Your task to perform on an android device: Search for razer deathadder on walmart, select the first entry, and add it to the cart. Image 0: 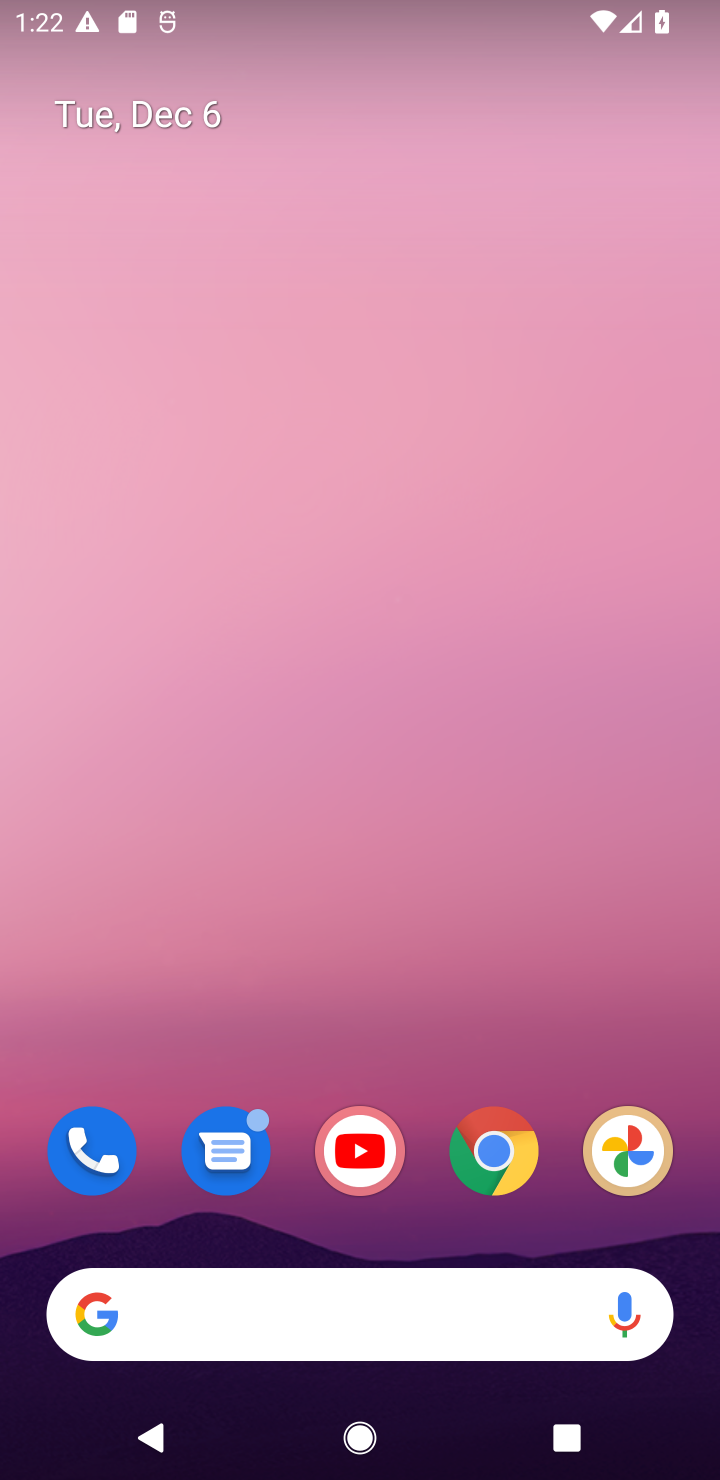
Step 0: click (504, 1154)
Your task to perform on an android device: Search for razer deathadder on walmart, select the first entry, and add it to the cart. Image 1: 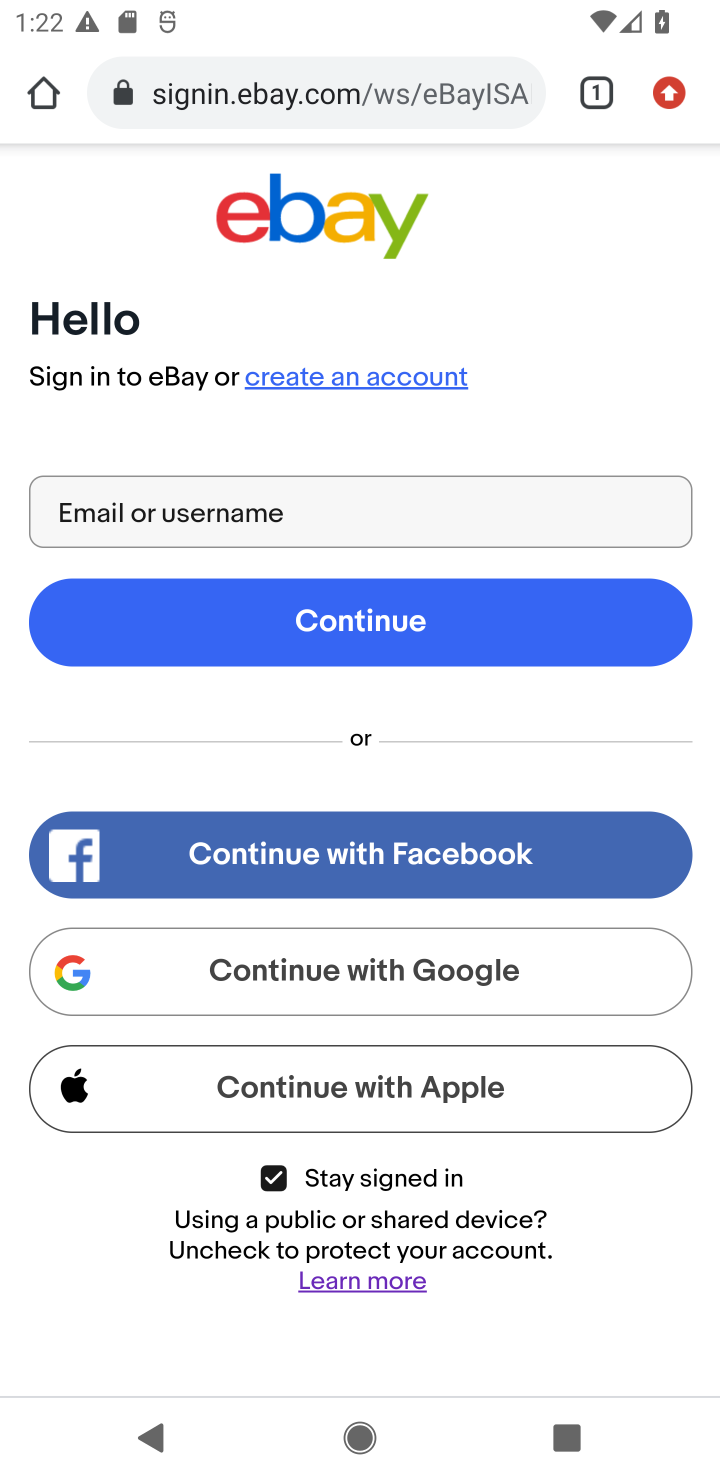
Step 1: click (276, 105)
Your task to perform on an android device: Search for razer deathadder on walmart, select the first entry, and add it to the cart. Image 2: 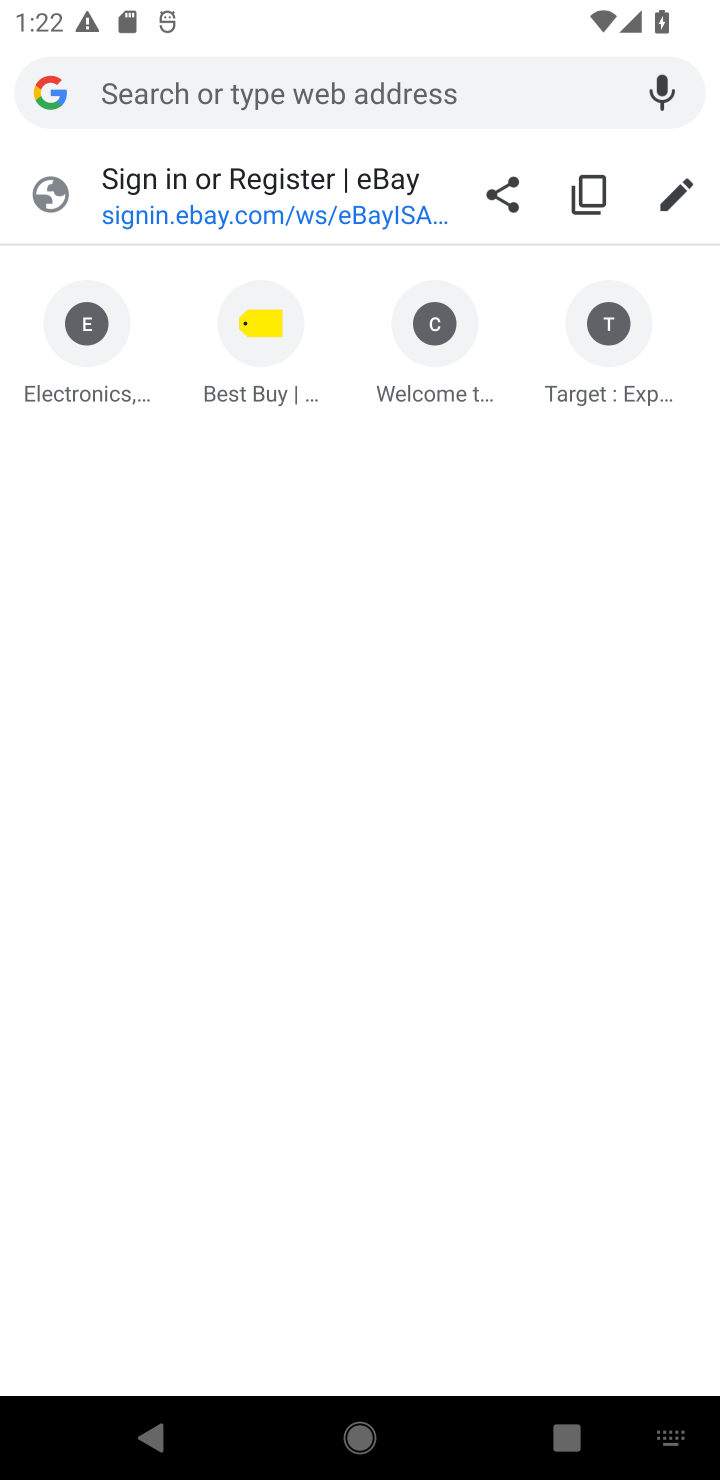
Step 2: type "walmart.com"
Your task to perform on an android device: Search for razer deathadder on walmart, select the first entry, and add it to the cart. Image 3: 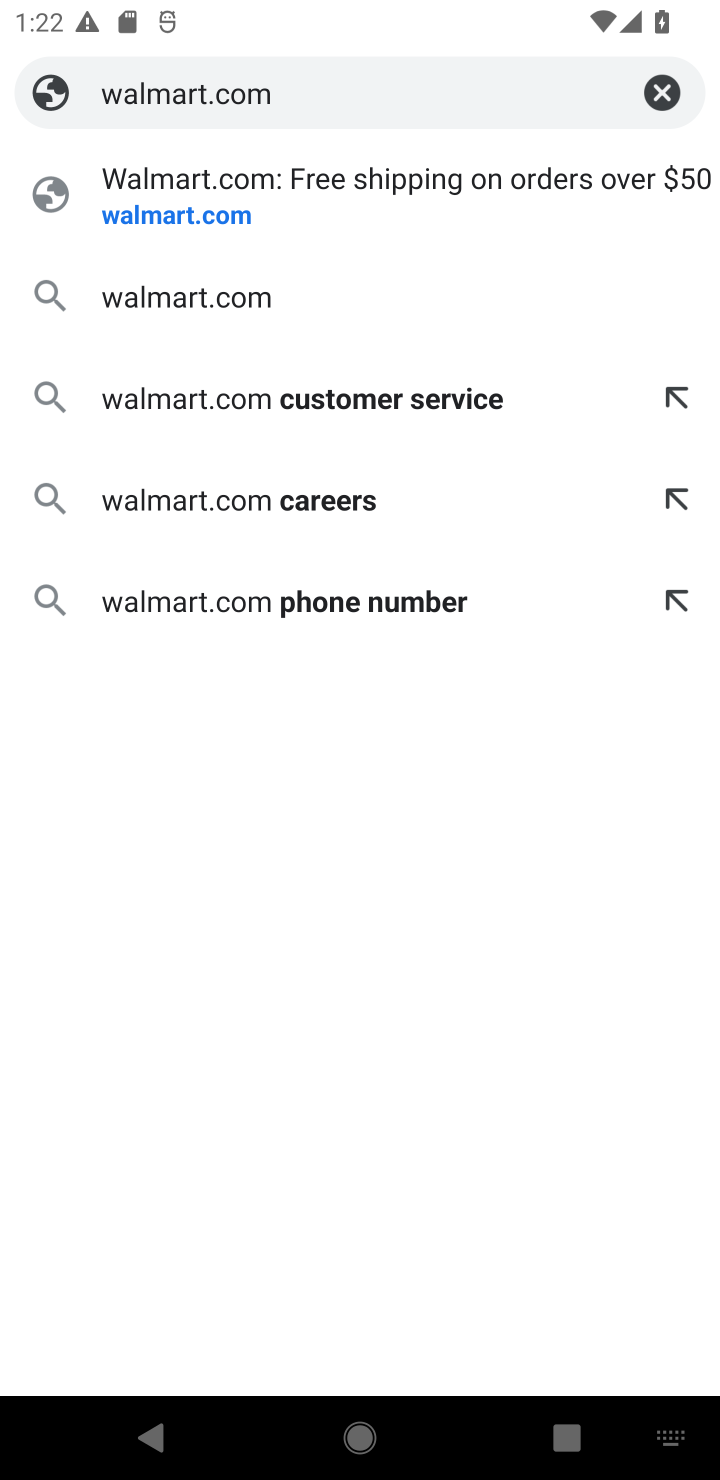
Step 3: click (186, 214)
Your task to perform on an android device: Search for razer deathadder on walmart, select the first entry, and add it to the cart. Image 4: 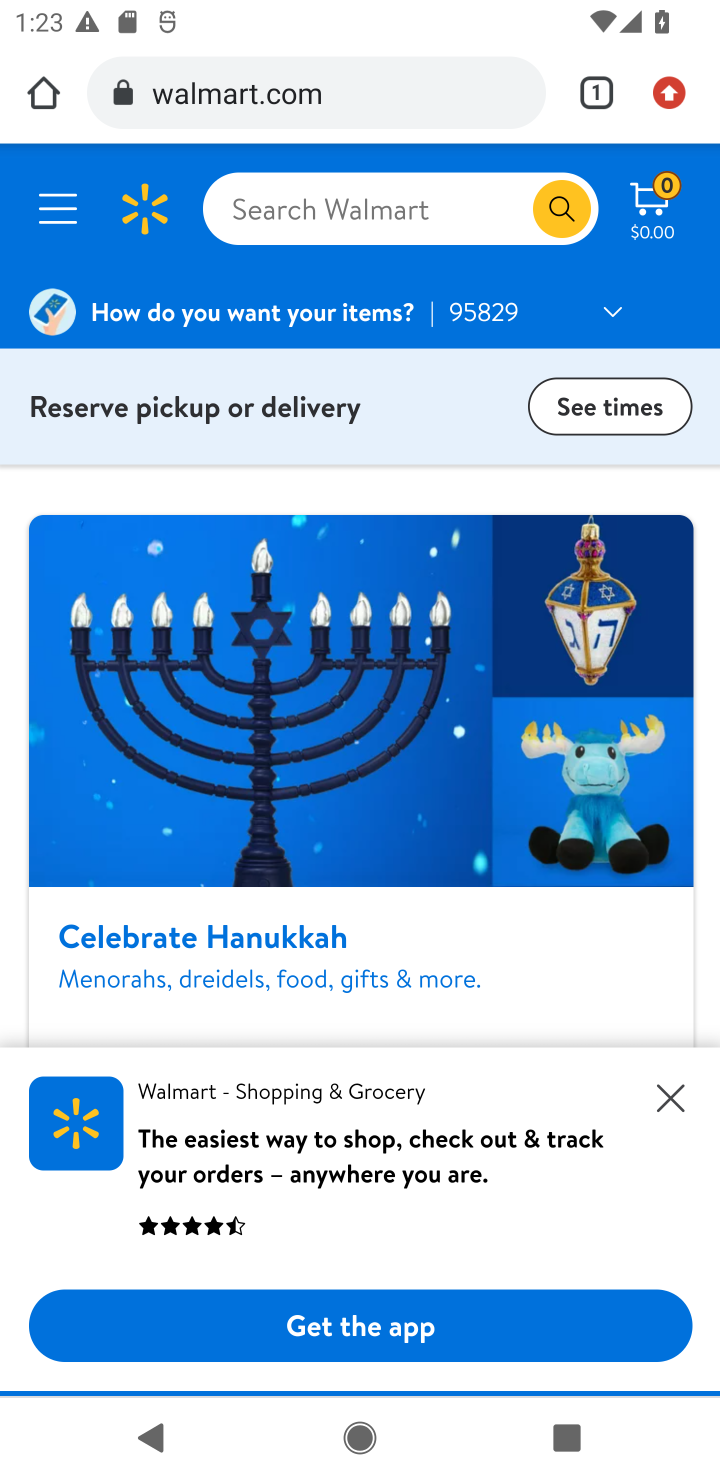
Step 4: click (283, 217)
Your task to perform on an android device: Search for razer deathadder on walmart, select the first entry, and add it to the cart. Image 5: 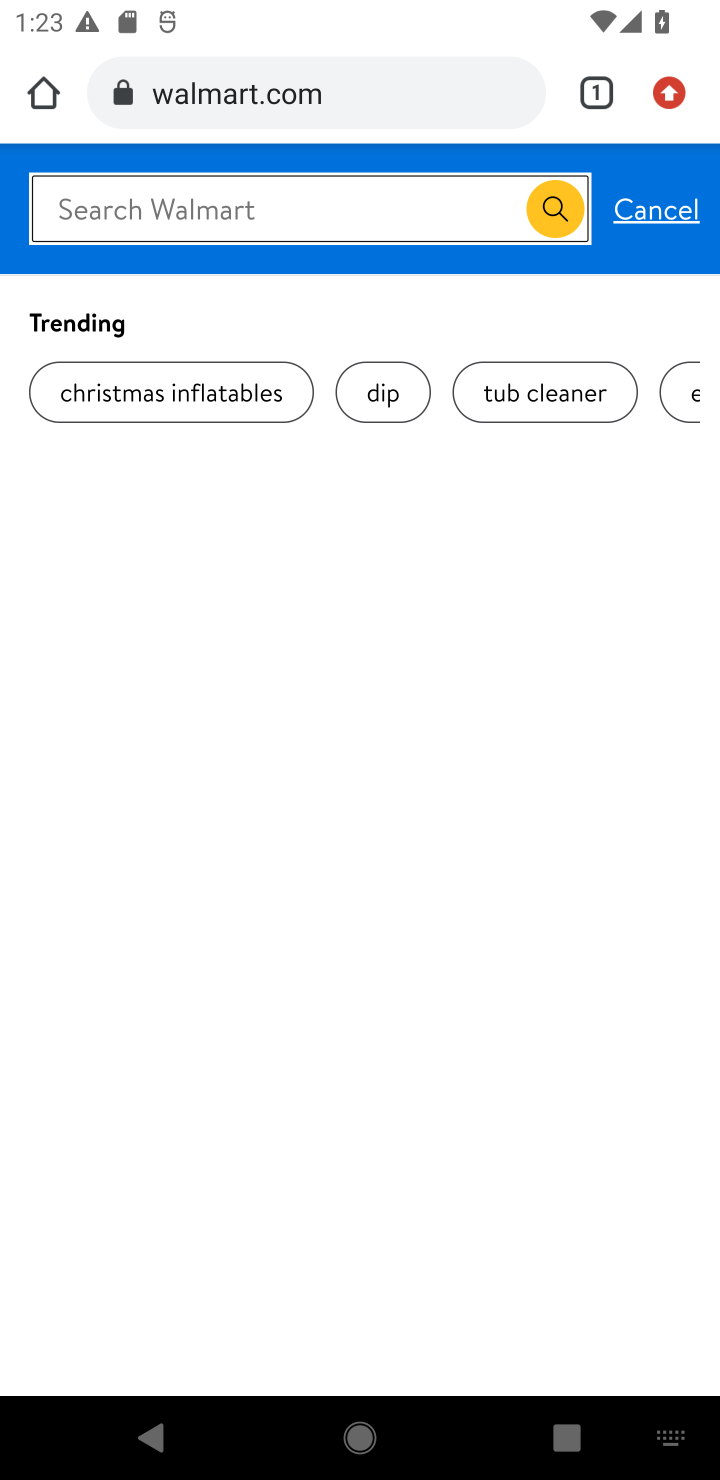
Step 5: type "razer deathadder "
Your task to perform on an android device: Search for razer deathadder on walmart, select the first entry, and add it to the cart. Image 6: 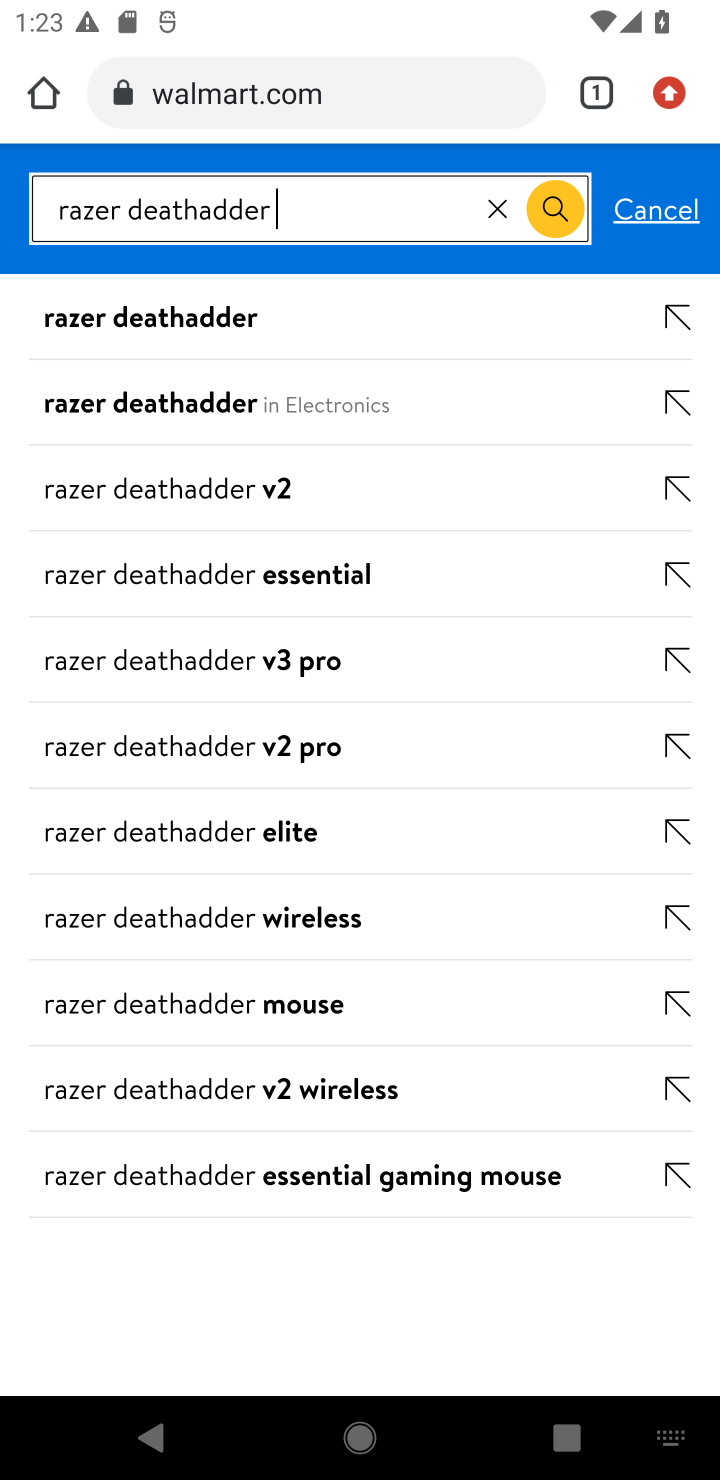
Step 6: click (198, 322)
Your task to perform on an android device: Search for razer deathadder on walmart, select the first entry, and add it to the cart. Image 7: 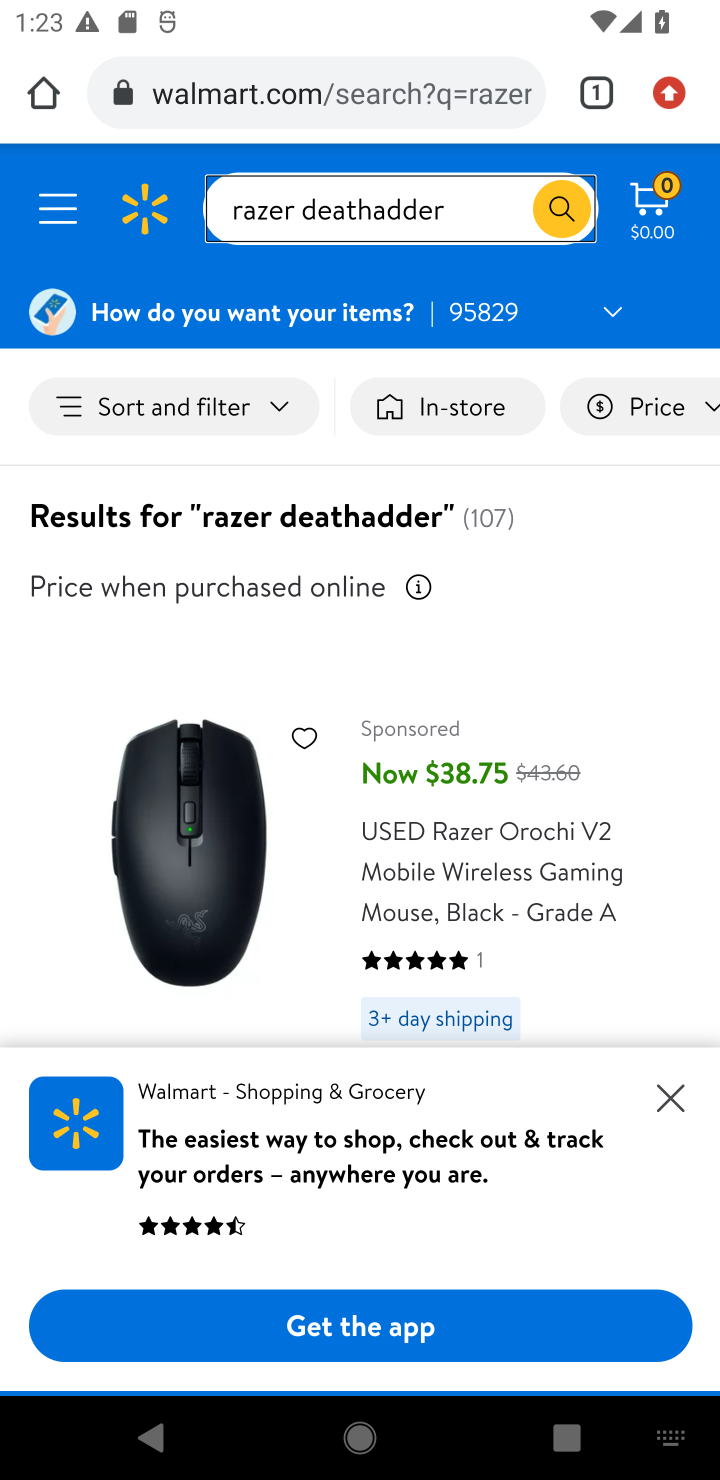
Step 7: task complete